Your task to perform on an android device: open app "Google Chrome" Image 0: 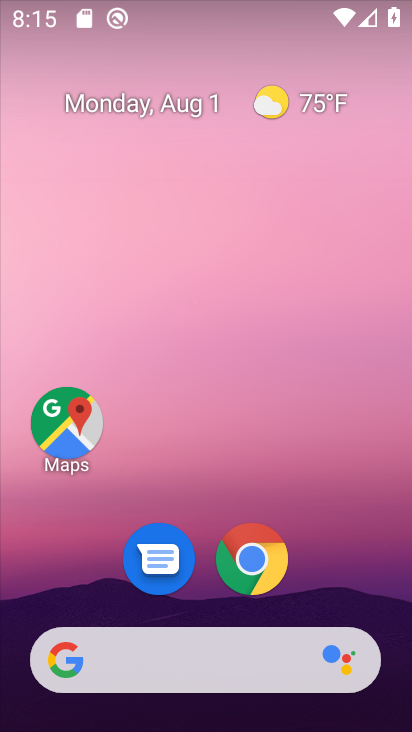
Step 0: click (267, 545)
Your task to perform on an android device: open app "Google Chrome" Image 1: 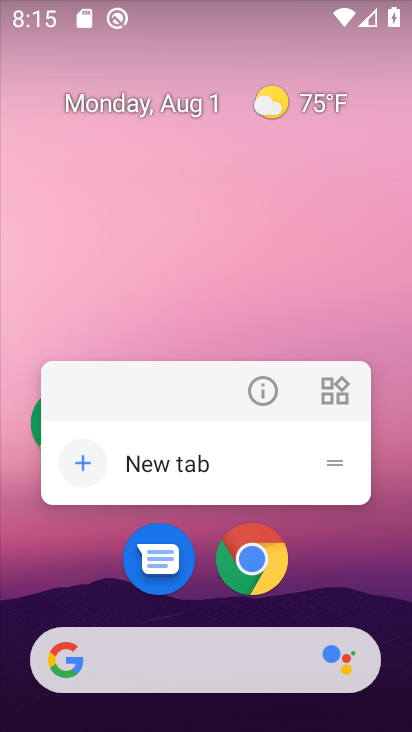
Step 1: click (267, 545)
Your task to perform on an android device: open app "Google Chrome" Image 2: 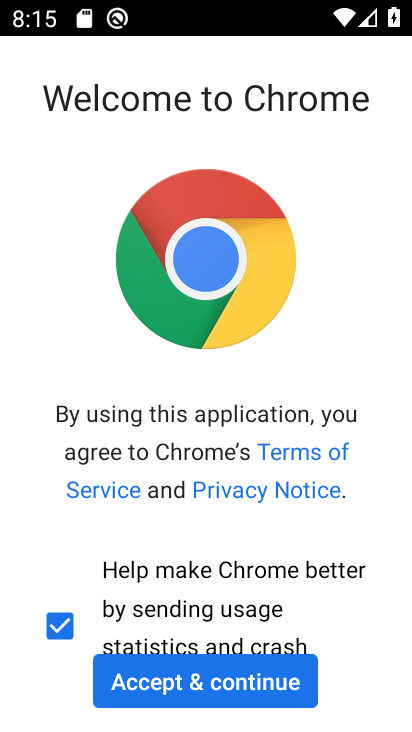
Step 2: task complete